Your task to perform on an android device: Open calendar and show me the second week of next month Image 0: 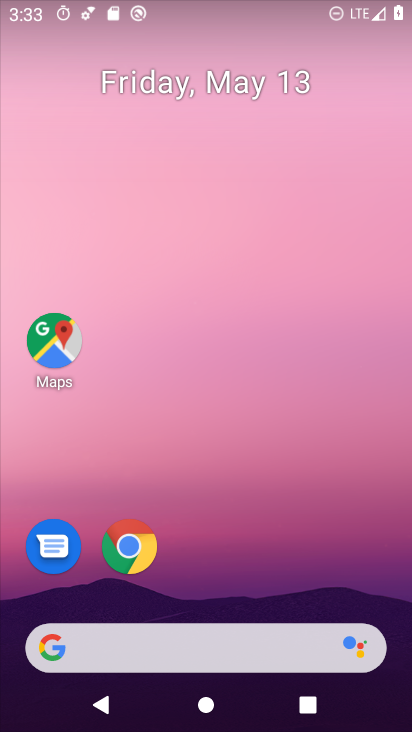
Step 0: drag from (194, 524) to (243, 90)
Your task to perform on an android device: Open calendar and show me the second week of next month Image 1: 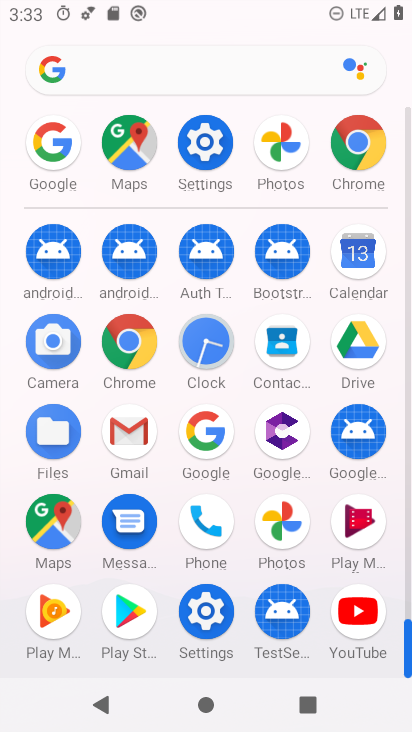
Step 1: click (365, 268)
Your task to perform on an android device: Open calendar and show me the second week of next month Image 2: 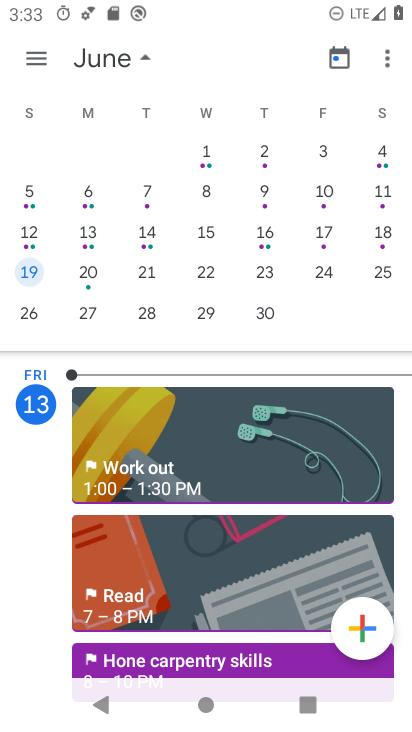
Step 2: click (37, 244)
Your task to perform on an android device: Open calendar and show me the second week of next month Image 3: 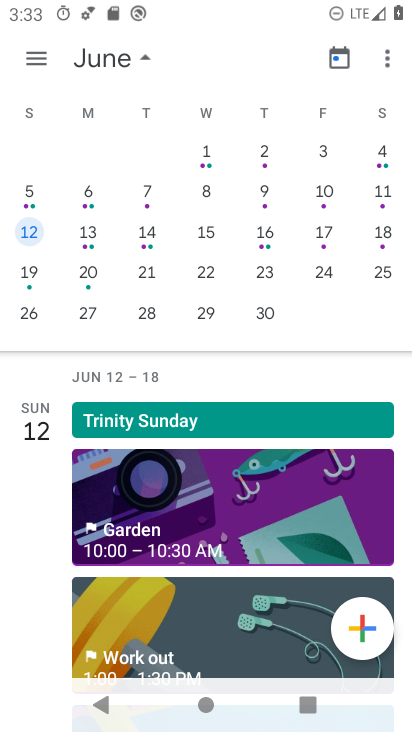
Step 3: task complete